Your task to perform on an android device: Go to accessibility settings Image 0: 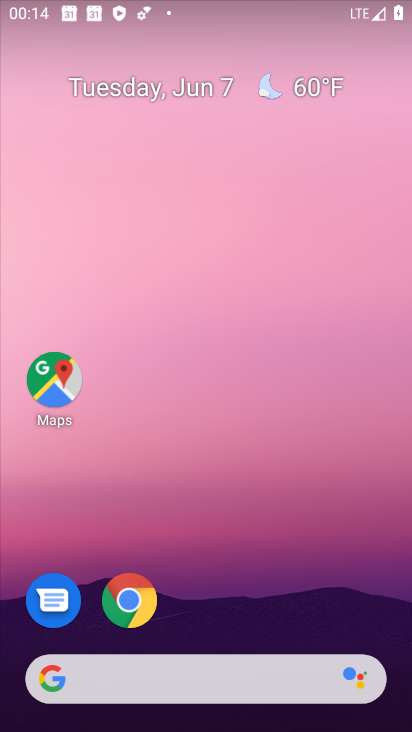
Step 0: drag from (225, 726) to (227, 145)
Your task to perform on an android device: Go to accessibility settings Image 1: 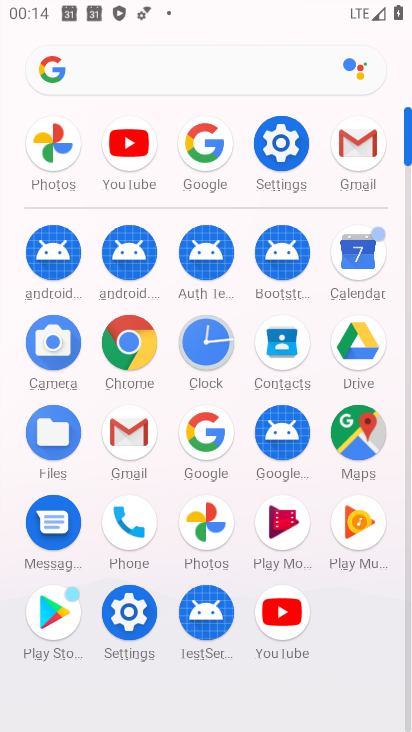
Step 1: click (283, 138)
Your task to perform on an android device: Go to accessibility settings Image 2: 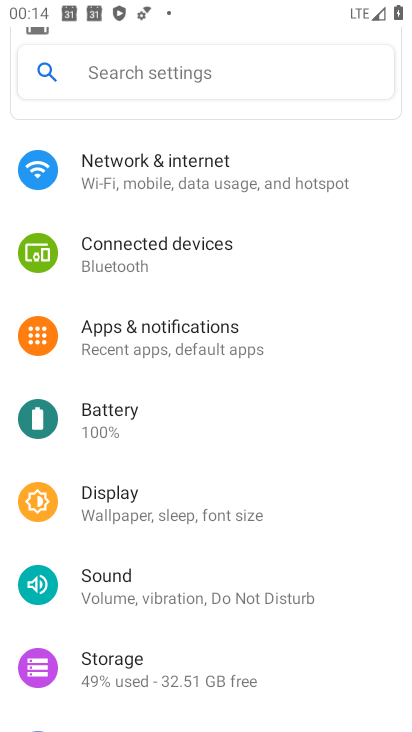
Step 2: drag from (165, 687) to (176, 336)
Your task to perform on an android device: Go to accessibility settings Image 3: 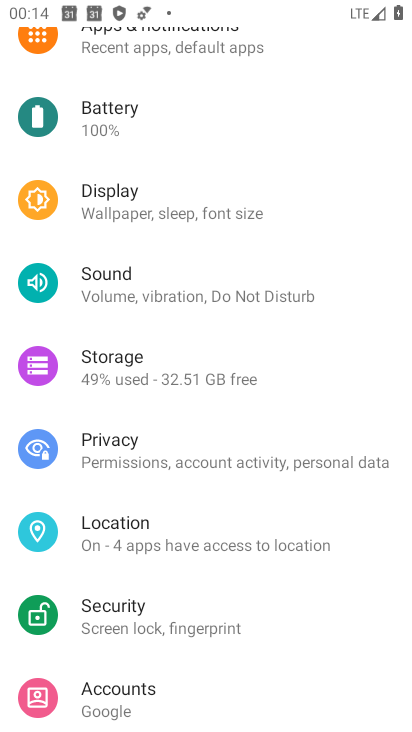
Step 3: drag from (211, 681) to (216, 278)
Your task to perform on an android device: Go to accessibility settings Image 4: 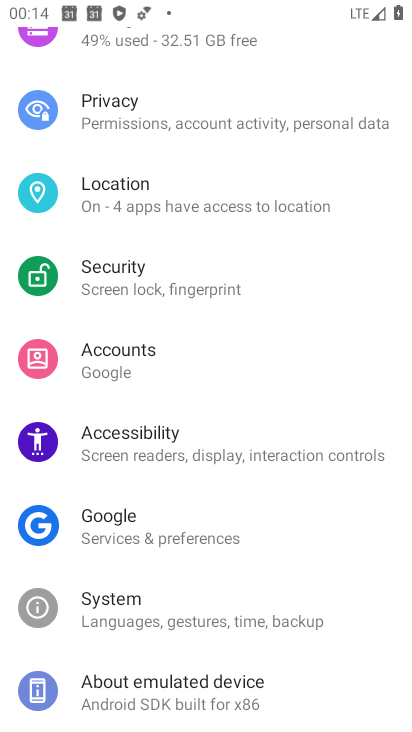
Step 4: click (149, 439)
Your task to perform on an android device: Go to accessibility settings Image 5: 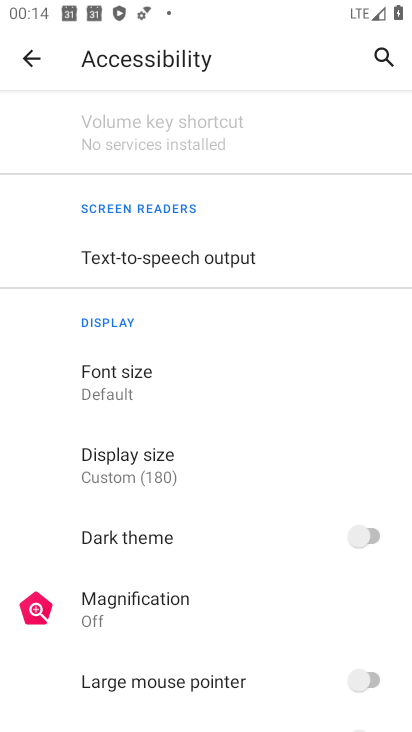
Step 5: task complete